Your task to perform on an android device: see tabs open on other devices in the chrome app Image 0: 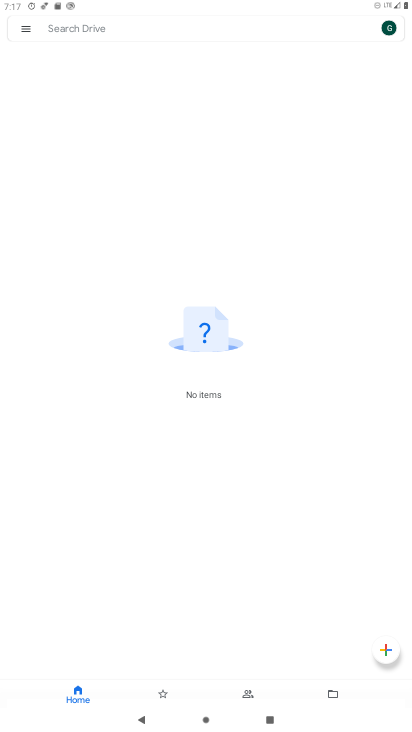
Step 0: press home button
Your task to perform on an android device: see tabs open on other devices in the chrome app Image 1: 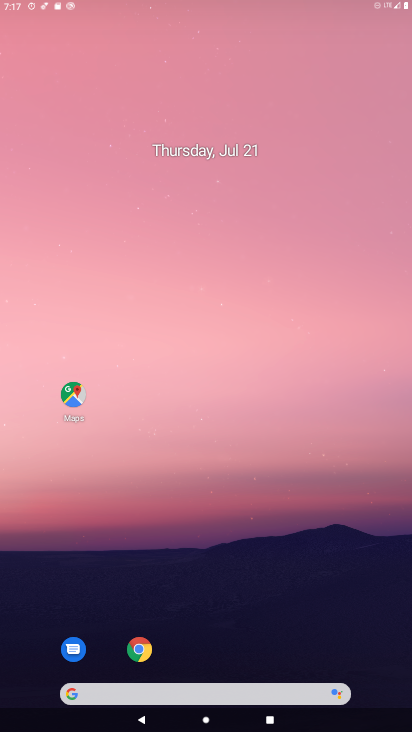
Step 1: drag from (315, 634) to (198, 2)
Your task to perform on an android device: see tabs open on other devices in the chrome app Image 2: 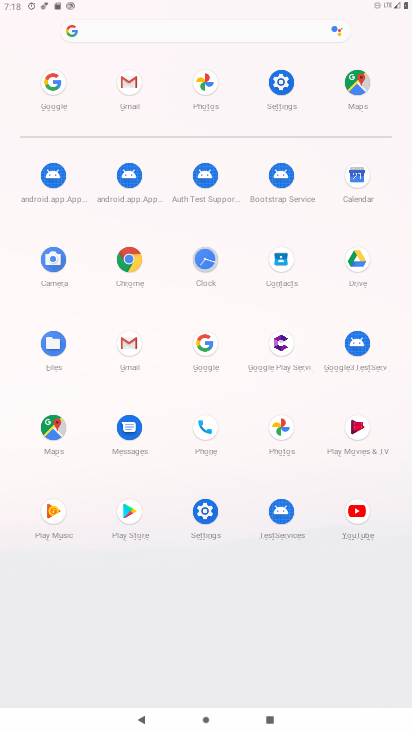
Step 2: click (111, 253)
Your task to perform on an android device: see tabs open on other devices in the chrome app Image 3: 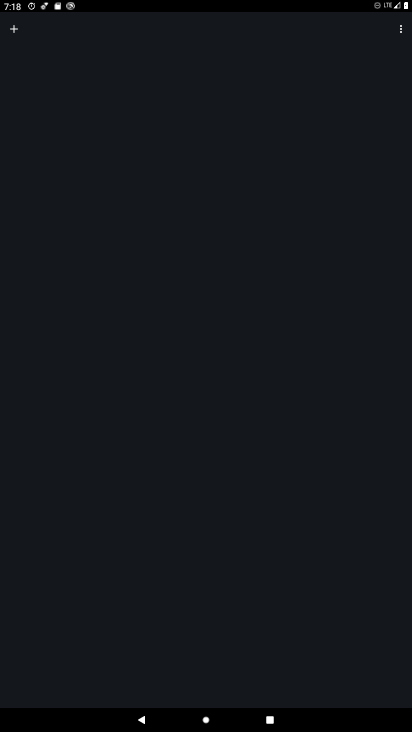
Step 3: task complete